Your task to perform on an android device: Show me popular videos on Youtube Image 0: 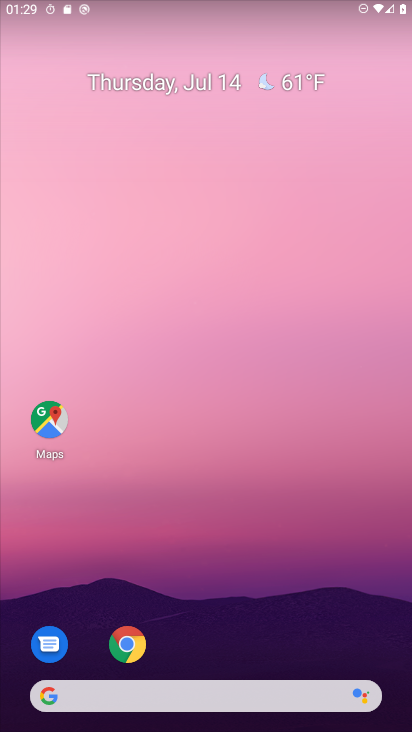
Step 0: drag from (343, 606) to (191, 14)
Your task to perform on an android device: Show me popular videos on Youtube Image 1: 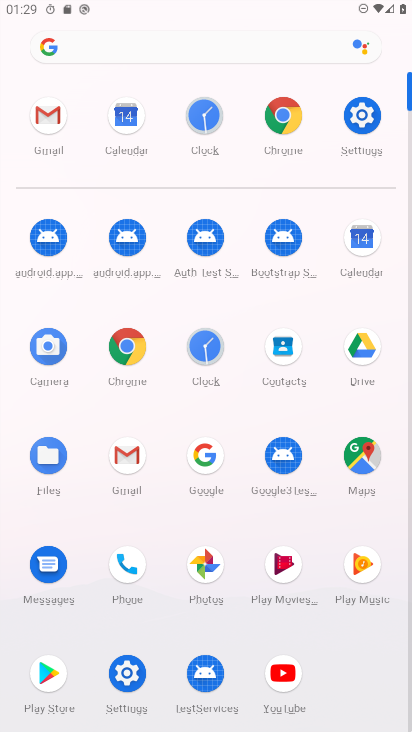
Step 1: click (297, 685)
Your task to perform on an android device: Show me popular videos on Youtube Image 2: 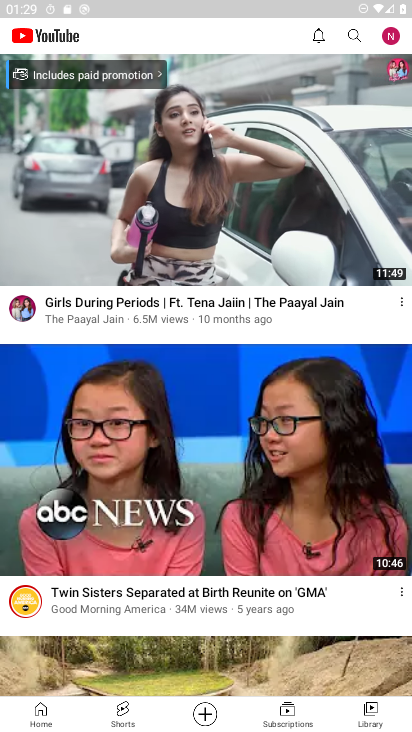
Step 2: click (61, 711)
Your task to perform on an android device: Show me popular videos on Youtube Image 3: 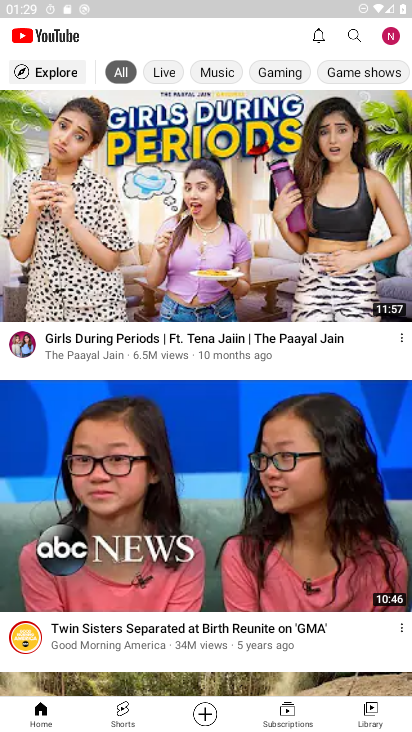
Step 3: click (41, 76)
Your task to perform on an android device: Show me popular videos on Youtube Image 4: 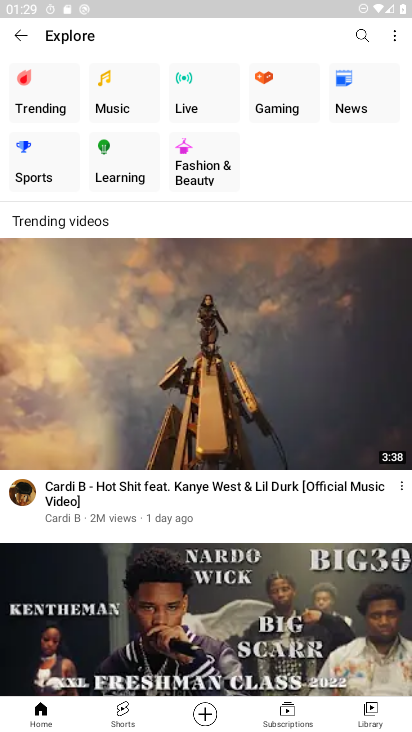
Step 4: task complete